Your task to perform on an android device: make emails show in primary in the gmail app Image 0: 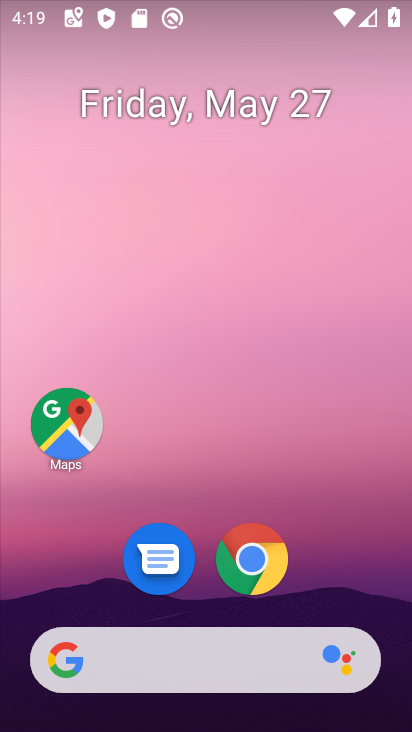
Step 0: click (318, 465)
Your task to perform on an android device: make emails show in primary in the gmail app Image 1: 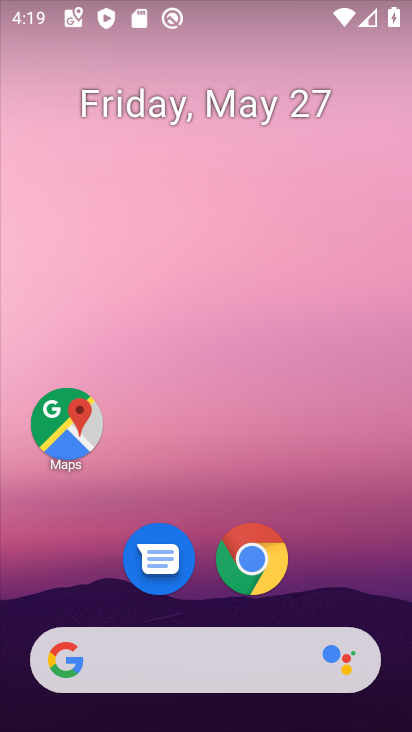
Step 1: drag from (392, 627) to (337, 291)
Your task to perform on an android device: make emails show in primary in the gmail app Image 2: 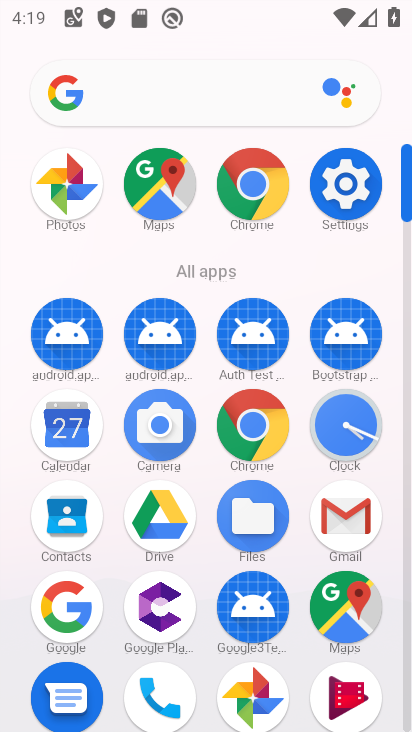
Step 2: click (318, 531)
Your task to perform on an android device: make emails show in primary in the gmail app Image 3: 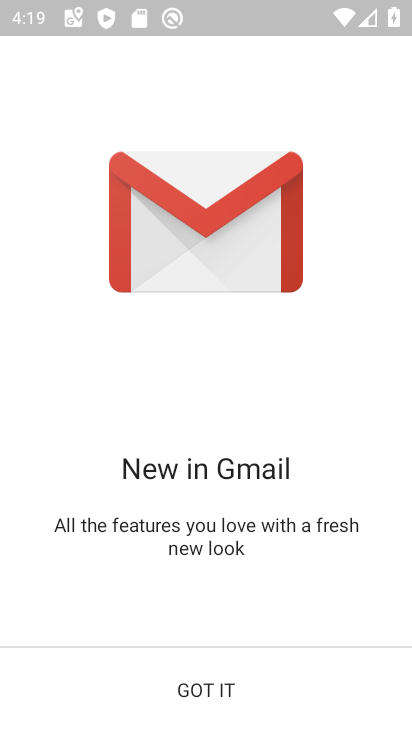
Step 3: click (193, 685)
Your task to perform on an android device: make emails show in primary in the gmail app Image 4: 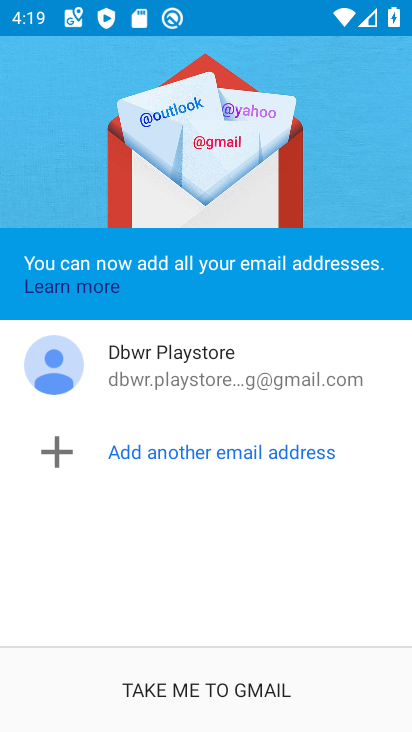
Step 4: click (193, 685)
Your task to perform on an android device: make emails show in primary in the gmail app Image 5: 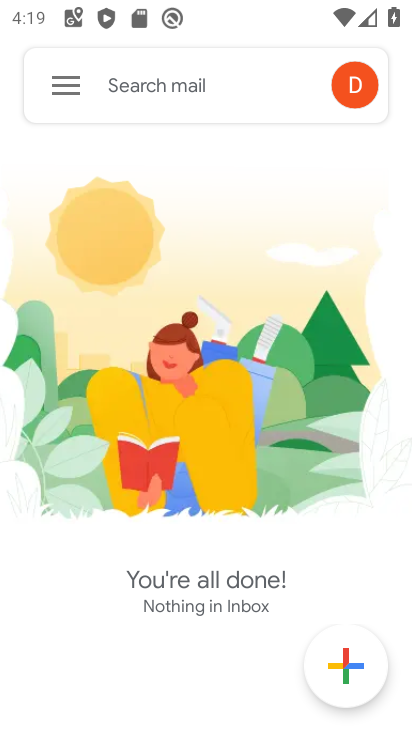
Step 5: click (61, 98)
Your task to perform on an android device: make emails show in primary in the gmail app Image 6: 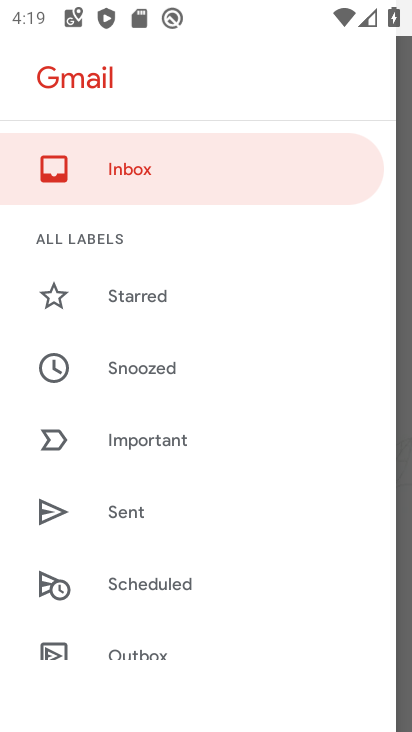
Step 6: click (125, 179)
Your task to perform on an android device: make emails show in primary in the gmail app Image 7: 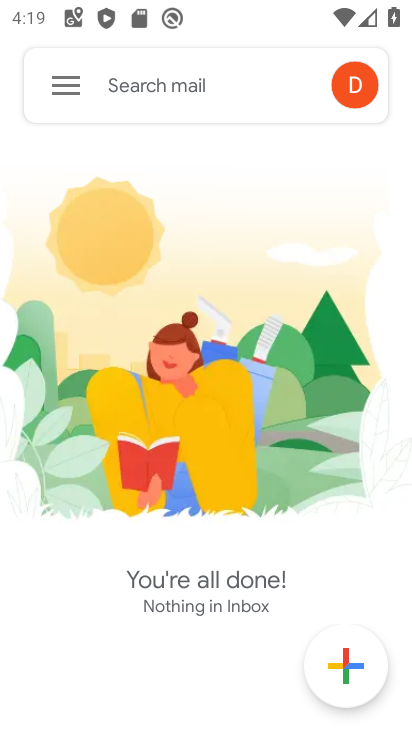
Step 7: click (49, 85)
Your task to perform on an android device: make emails show in primary in the gmail app Image 8: 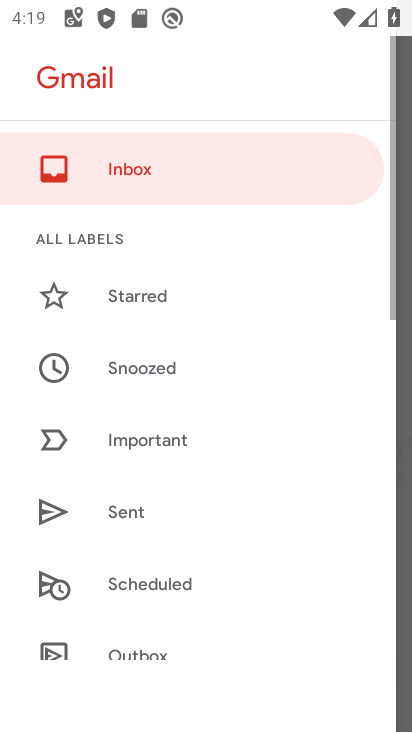
Step 8: drag from (247, 677) to (259, 267)
Your task to perform on an android device: make emails show in primary in the gmail app Image 9: 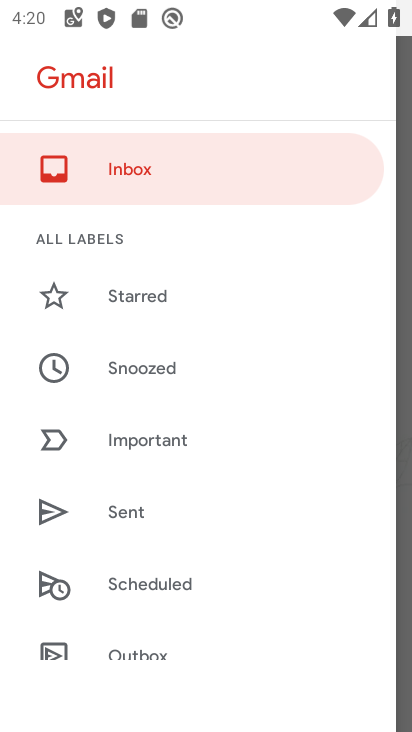
Step 9: drag from (243, 631) to (261, 174)
Your task to perform on an android device: make emails show in primary in the gmail app Image 10: 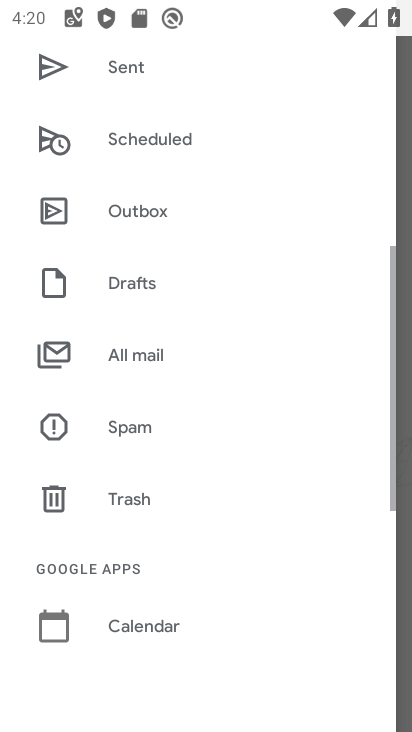
Step 10: drag from (250, 621) to (215, 317)
Your task to perform on an android device: make emails show in primary in the gmail app Image 11: 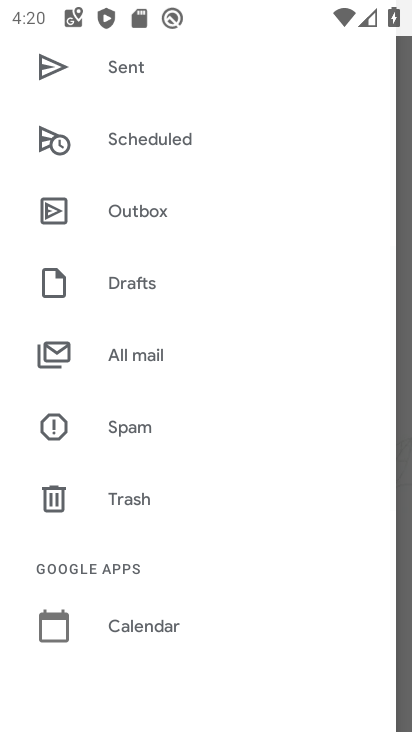
Step 11: drag from (266, 483) to (295, 251)
Your task to perform on an android device: make emails show in primary in the gmail app Image 12: 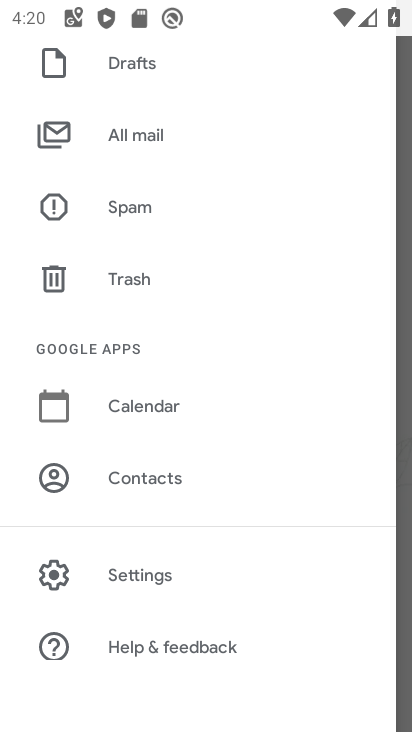
Step 12: click (137, 573)
Your task to perform on an android device: make emails show in primary in the gmail app Image 13: 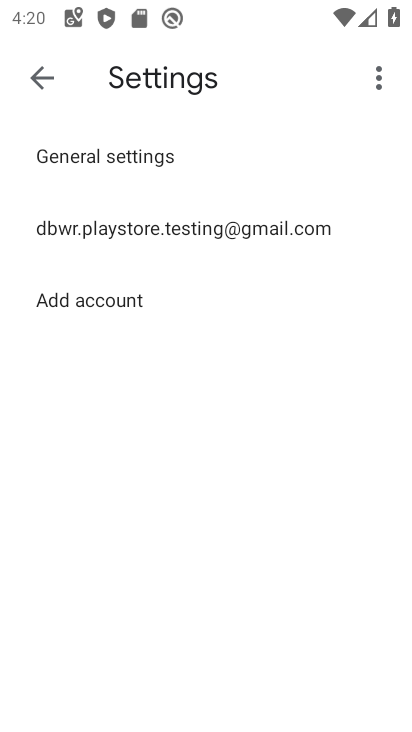
Step 13: click (37, 234)
Your task to perform on an android device: make emails show in primary in the gmail app Image 14: 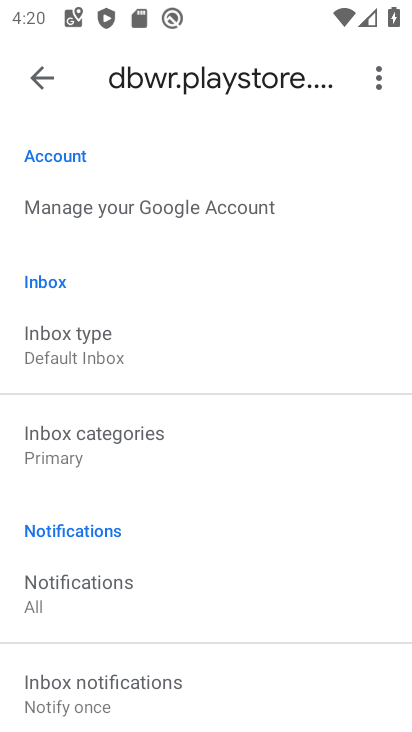
Step 14: click (77, 352)
Your task to perform on an android device: make emails show in primary in the gmail app Image 15: 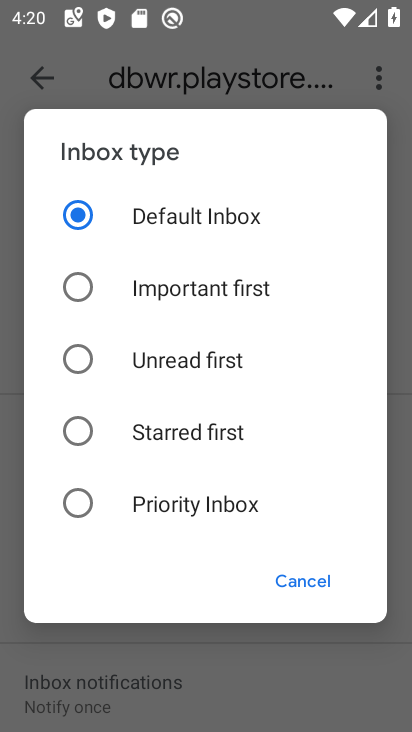
Step 15: click (288, 583)
Your task to perform on an android device: make emails show in primary in the gmail app Image 16: 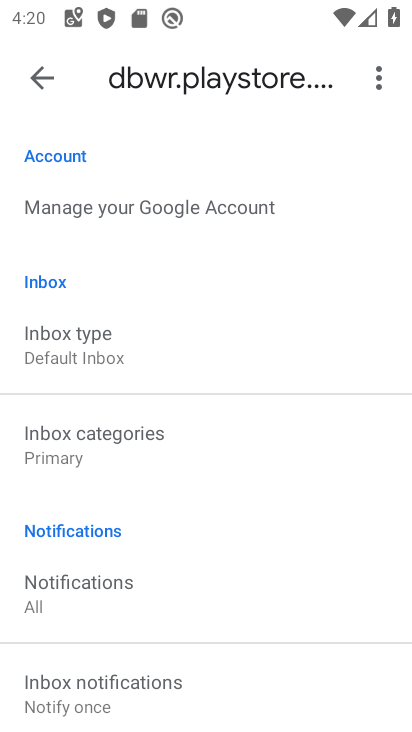
Step 16: click (64, 443)
Your task to perform on an android device: make emails show in primary in the gmail app Image 17: 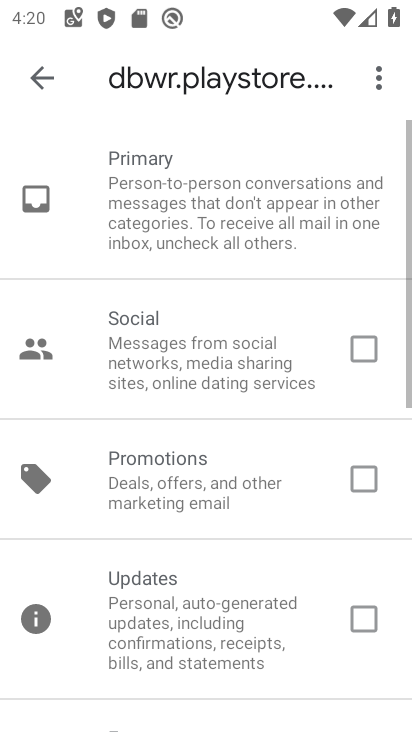
Step 17: task complete